Your task to perform on an android device: see tabs open on other devices in the chrome app Image 0: 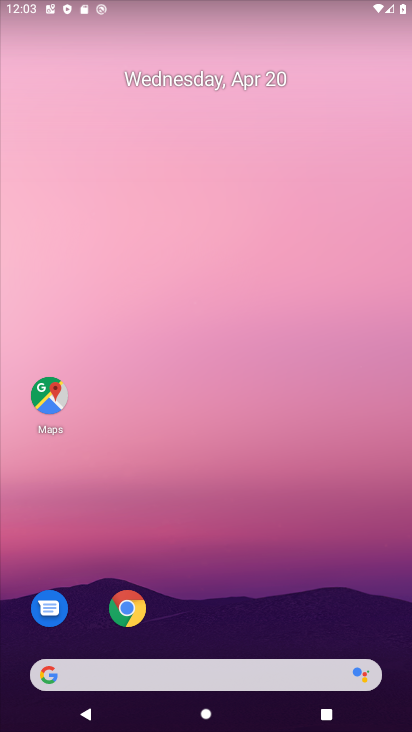
Step 0: click (137, 608)
Your task to perform on an android device: see tabs open on other devices in the chrome app Image 1: 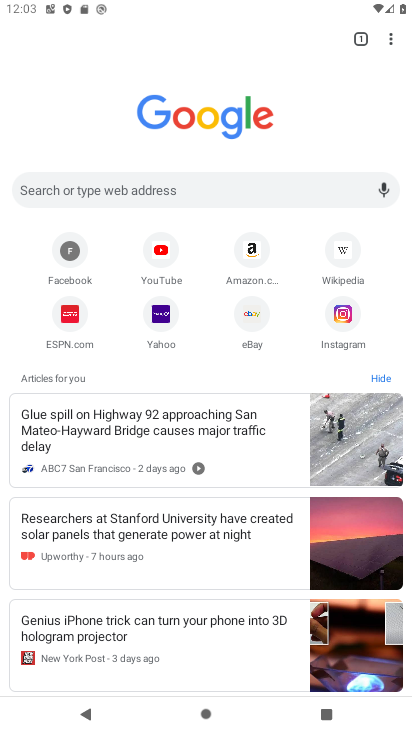
Step 1: click (391, 42)
Your task to perform on an android device: see tabs open on other devices in the chrome app Image 2: 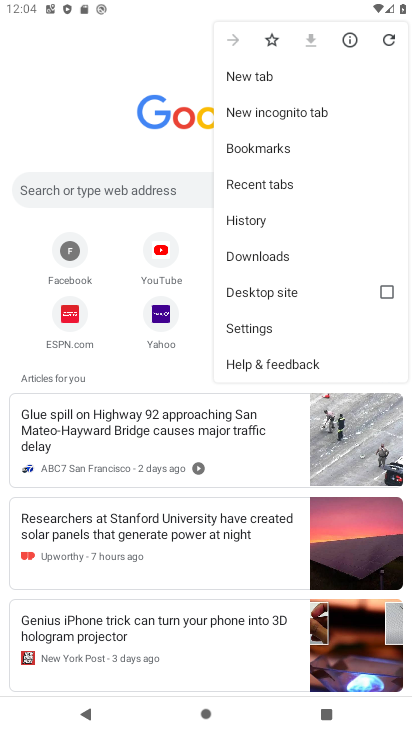
Step 2: click (248, 183)
Your task to perform on an android device: see tabs open on other devices in the chrome app Image 3: 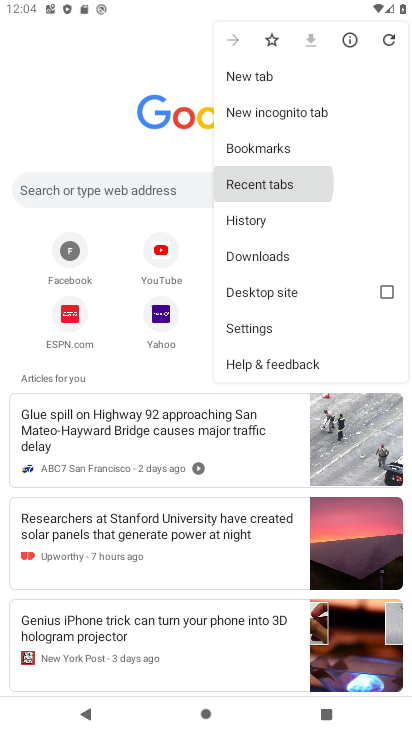
Step 3: click (248, 183)
Your task to perform on an android device: see tabs open on other devices in the chrome app Image 4: 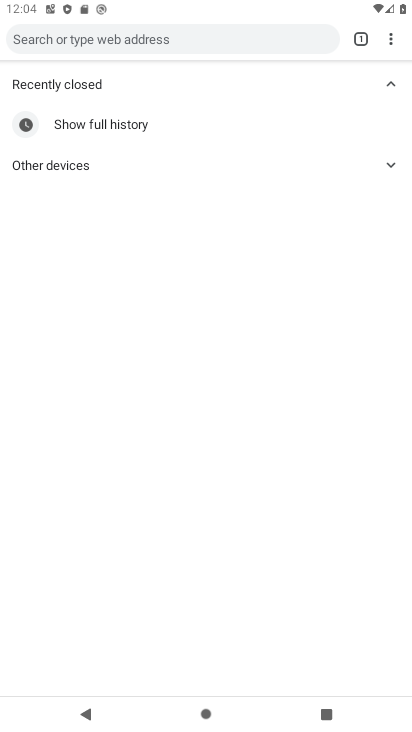
Step 4: click (389, 160)
Your task to perform on an android device: see tabs open on other devices in the chrome app Image 5: 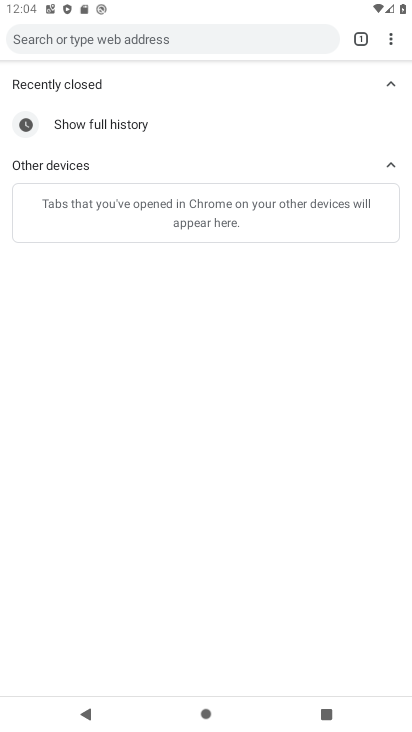
Step 5: task complete